Your task to perform on an android device: change timer sound Image 0: 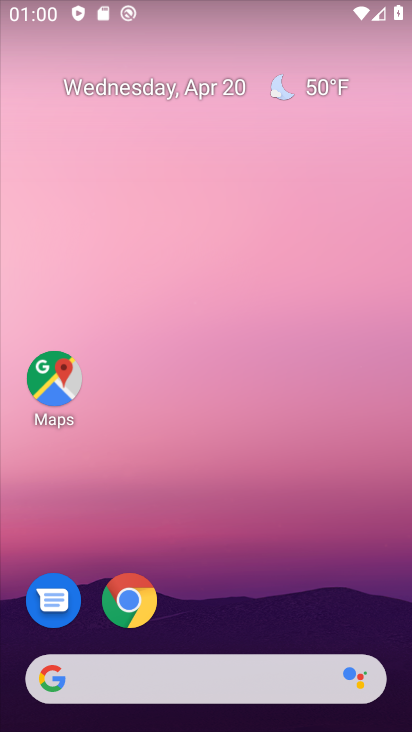
Step 0: drag from (270, 628) to (317, 50)
Your task to perform on an android device: change timer sound Image 1: 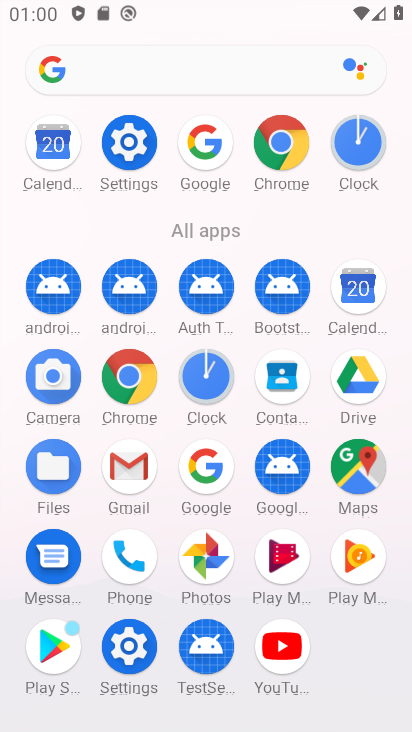
Step 1: click (184, 382)
Your task to perform on an android device: change timer sound Image 2: 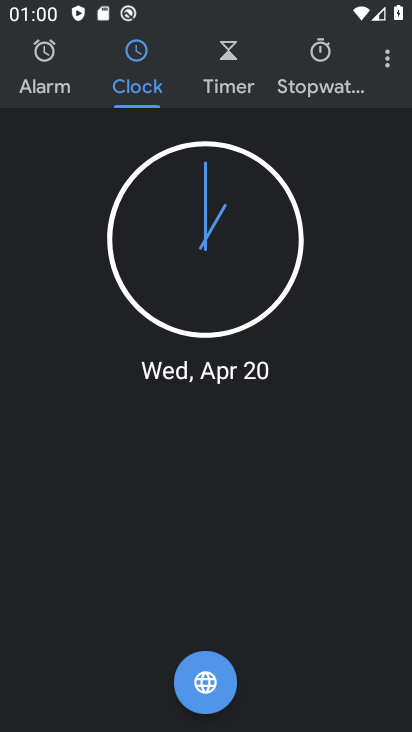
Step 2: click (380, 62)
Your task to perform on an android device: change timer sound Image 3: 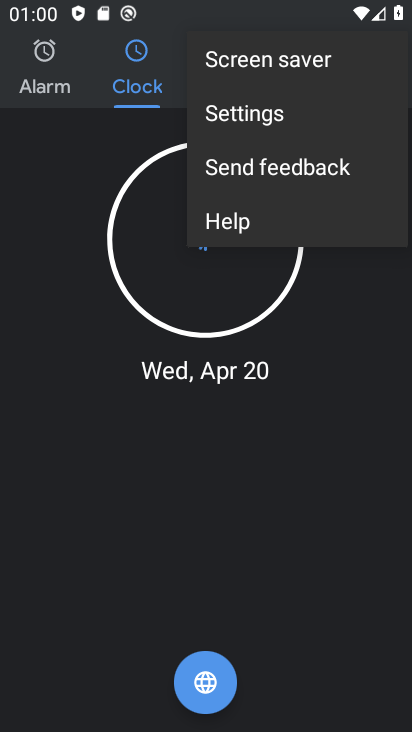
Step 3: click (328, 106)
Your task to perform on an android device: change timer sound Image 4: 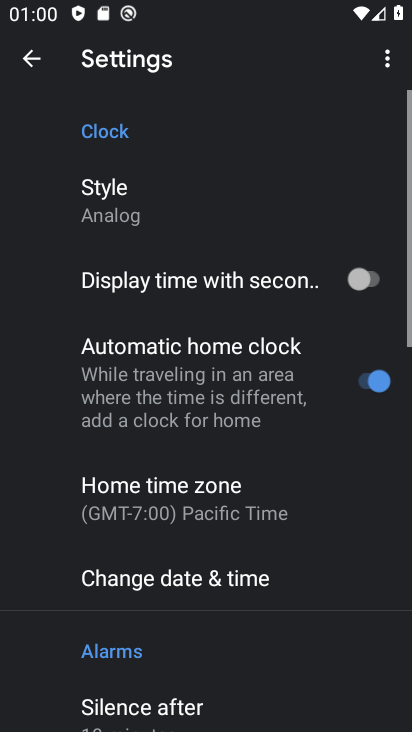
Step 4: click (140, 194)
Your task to perform on an android device: change timer sound Image 5: 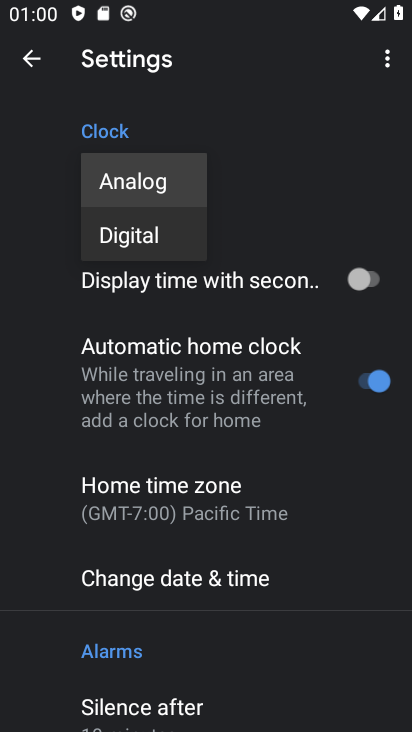
Step 5: drag from (302, 489) to (333, 67)
Your task to perform on an android device: change timer sound Image 6: 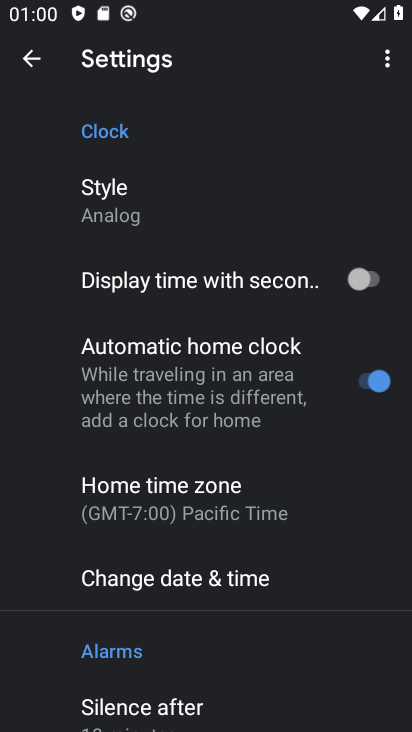
Step 6: drag from (316, 565) to (272, 141)
Your task to perform on an android device: change timer sound Image 7: 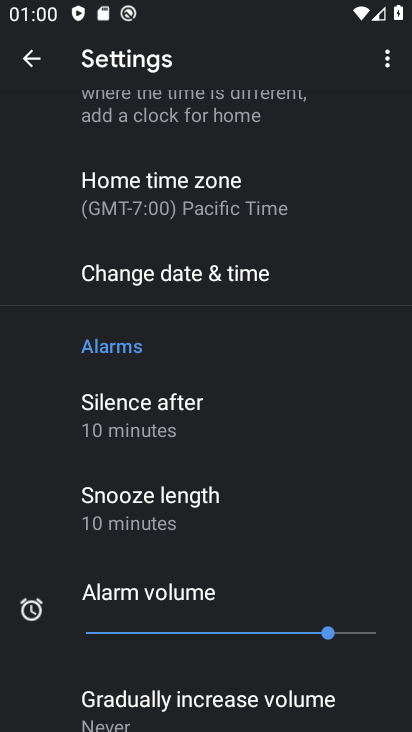
Step 7: drag from (275, 431) to (285, 135)
Your task to perform on an android device: change timer sound Image 8: 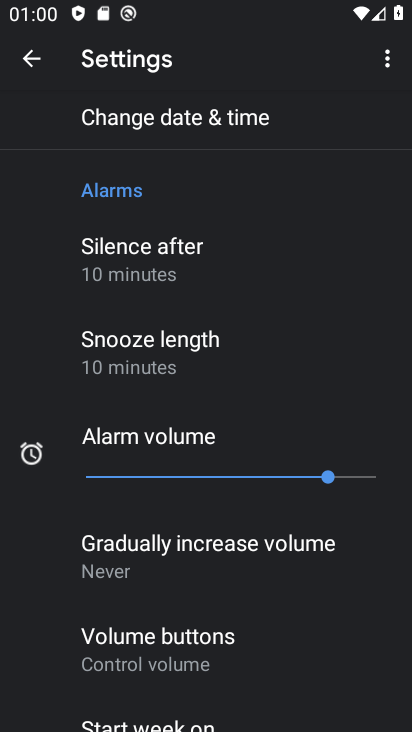
Step 8: drag from (217, 572) to (277, 154)
Your task to perform on an android device: change timer sound Image 9: 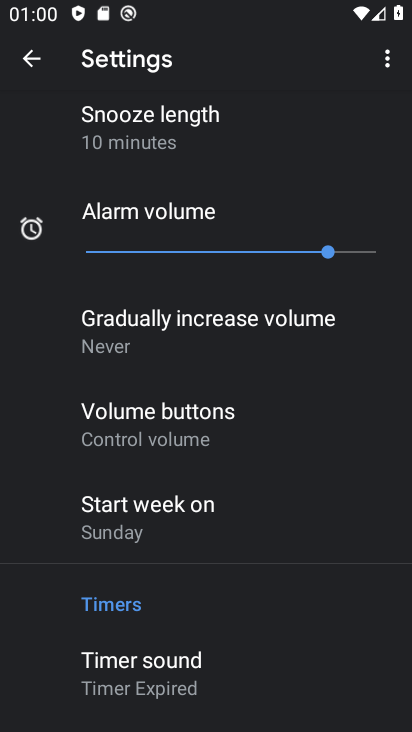
Step 9: drag from (207, 582) to (218, 244)
Your task to perform on an android device: change timer sound Image 10: 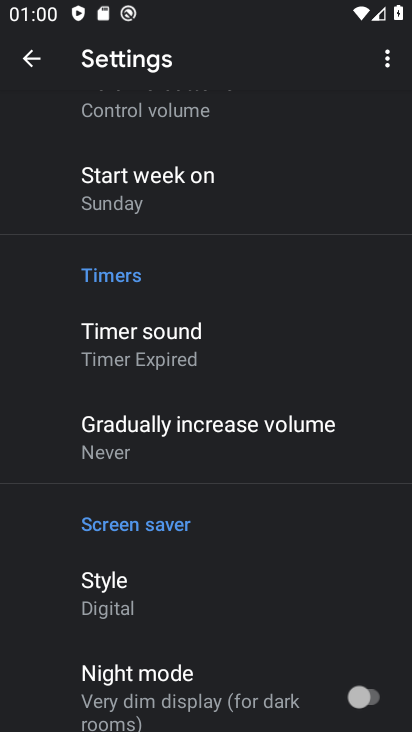
Step 10: click (149, 343)
Your task to perform on an android device: change timer sound Image 11: 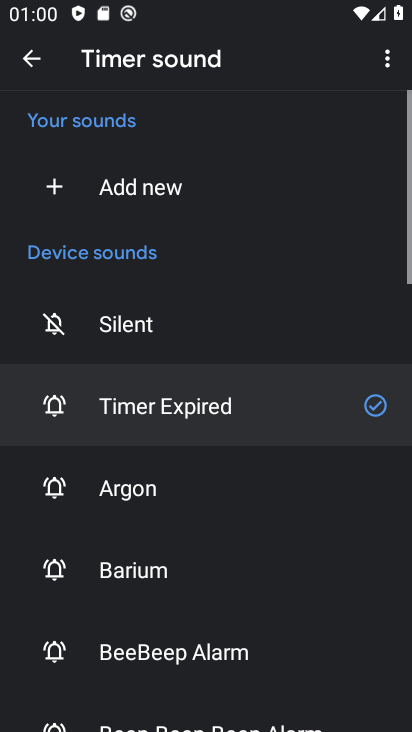
Step 11: click (192, 507)
Your task to perform on an android device: change timer sound Image 12: 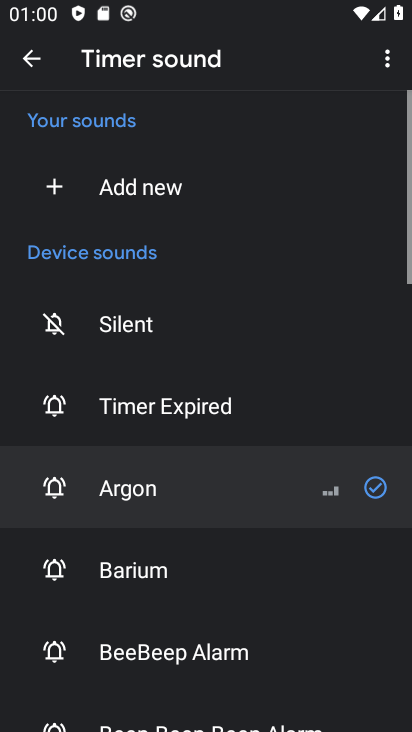
Step 12: task complete